Your task to perform on an android device: Open Google Maps Image 0: 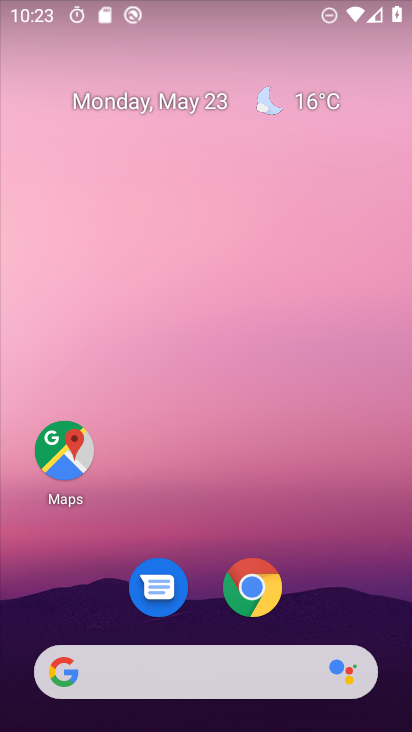
Step 0: click (65, 454)
Your task to perform on an android device: Open Google Maps Image 1: 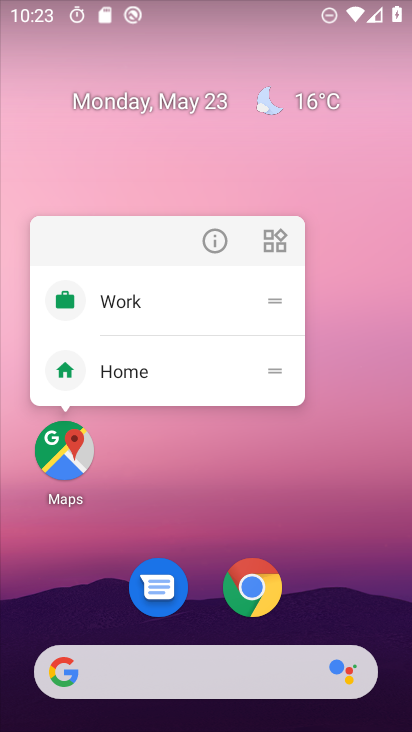
Step 1: click (65, 454)
Your task to perform on an android device: Open Google Maps Image 2: 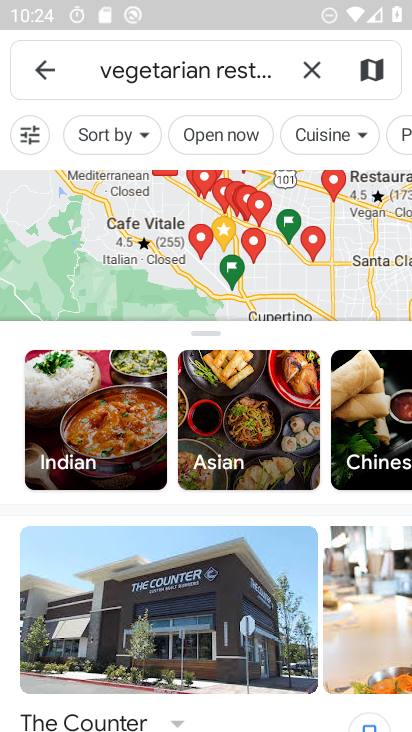
Step 2: task complete